Your task to perform on an android device: open sync settings in chrome Image 0: 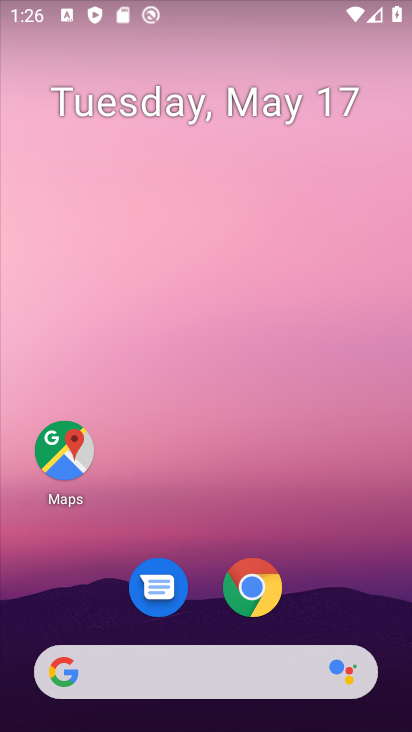
Step 0: drag from (204, 608) to (241, 21)
Your task to perform on an android device: open sync settings in chrome Image 1: 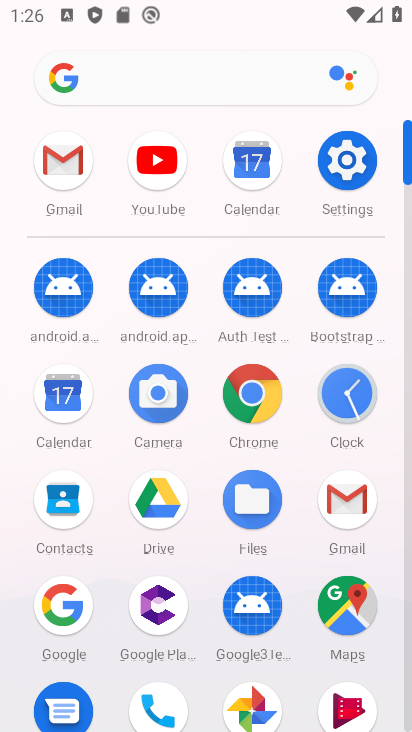
Step 1: click (249, 399)
Your task to perform on an android device: open sync settings in chrome Image 2: 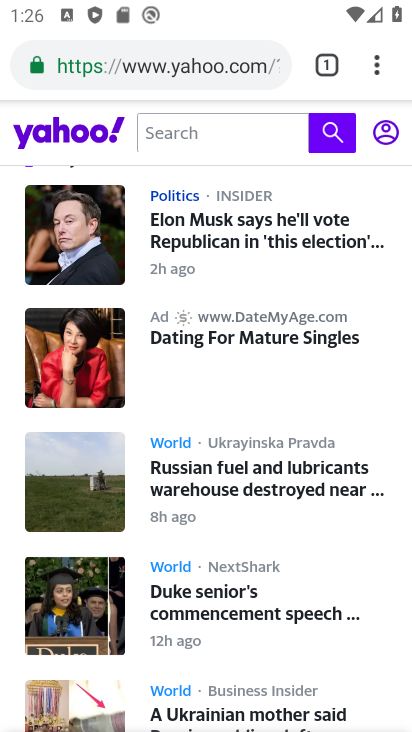
Step 2: drag from (250, 523) to (346, 123)
Your task to perform on an android device: open sync settings in chrome Image 3: 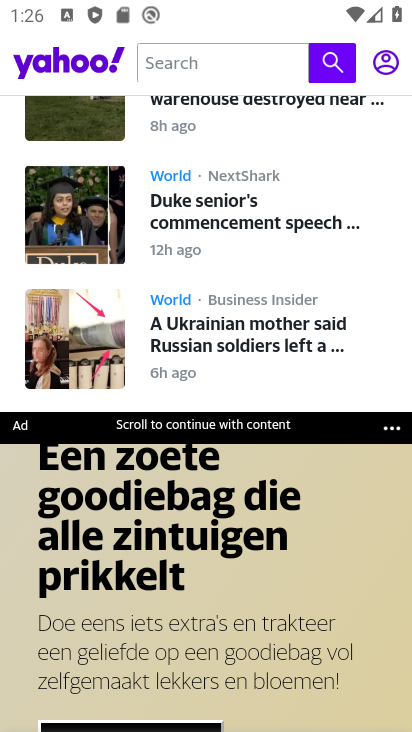
Step 3: drag from (260, 588) to (266, 233)
Your task to perform on an android device: open sync settings in chrome Image 4: 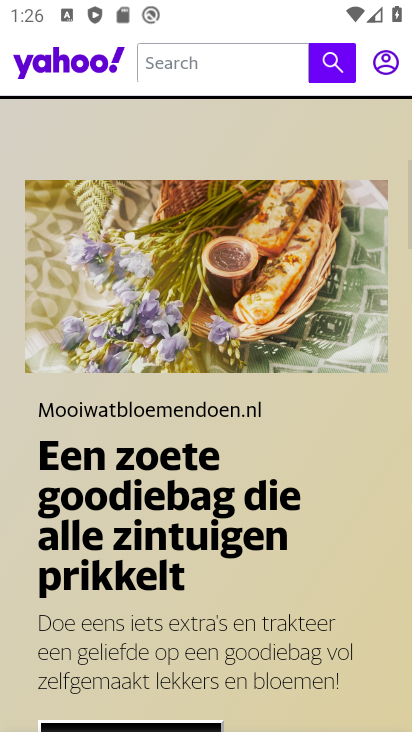
Step 4: drag from (255, 114) to (258, 731)
Your task to perform on an android device: open sync settings in chrome Image 5: 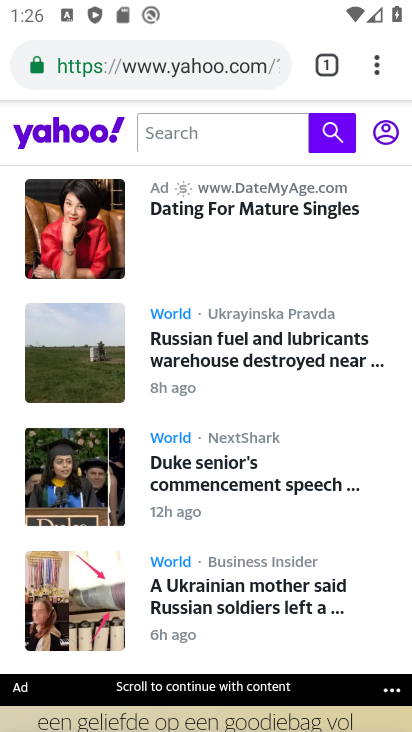
Step 5: drag from (291, 403) to (192, 726)
Your task to perform on an android device: open sync settings in chrome Image 6: 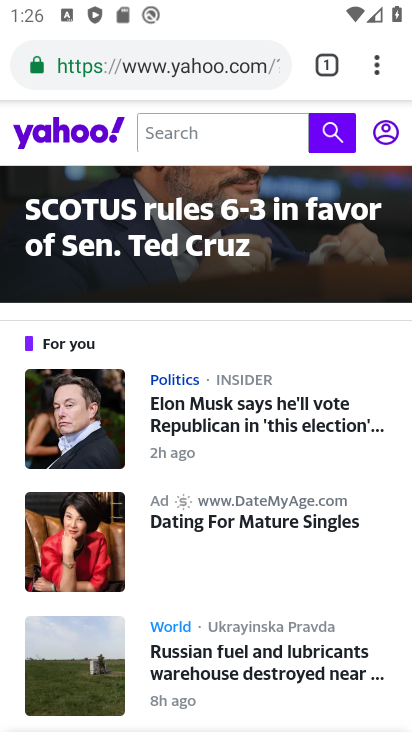
Step 6: click (378, 67)
Your task to perform on an android device: open sync settings in chrome Image 7: 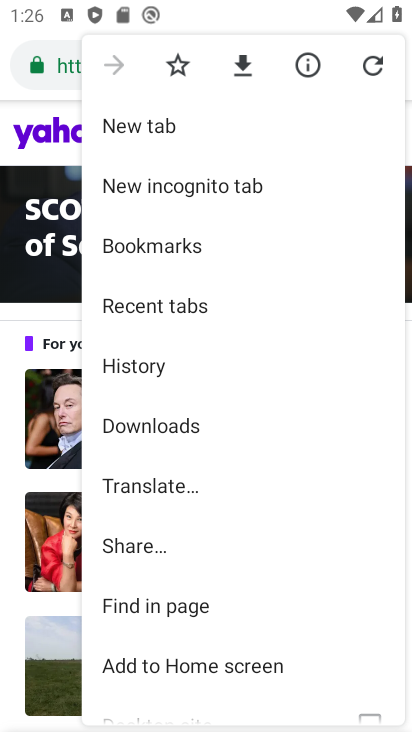
Step 7: drag from (207, 610) to (140, 6)
Your task to perform on an android device: open sync settings in chrome Image 8: 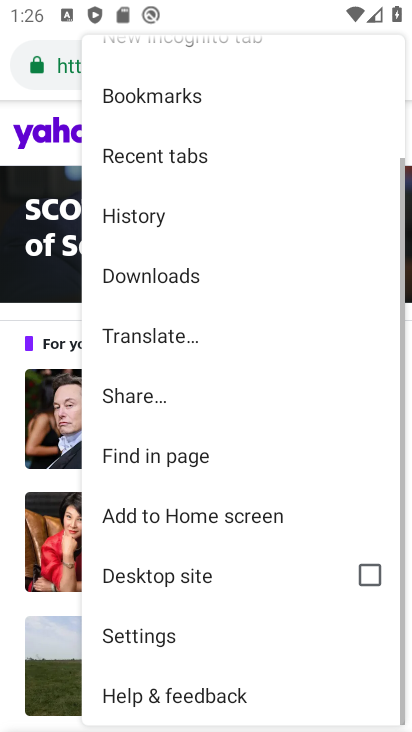
Step 8: click (170, 626)
Your task to perform on an android device: open sync settings in chrome Image 9: 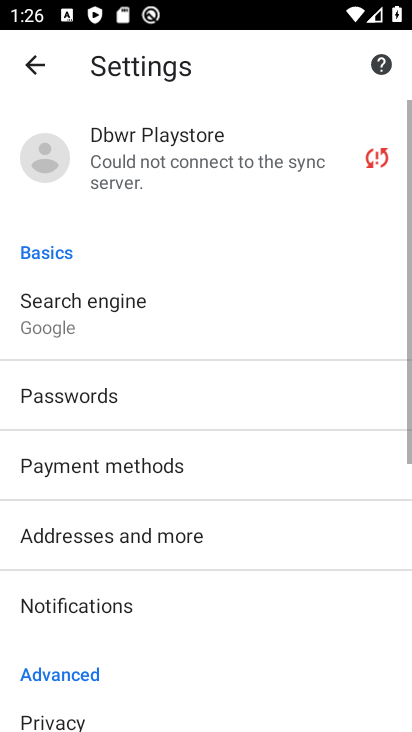
Step 9: drag from (199, 664) to (273, 42)
Your task to perform on an android device: open sync settings in chrome Image 10: 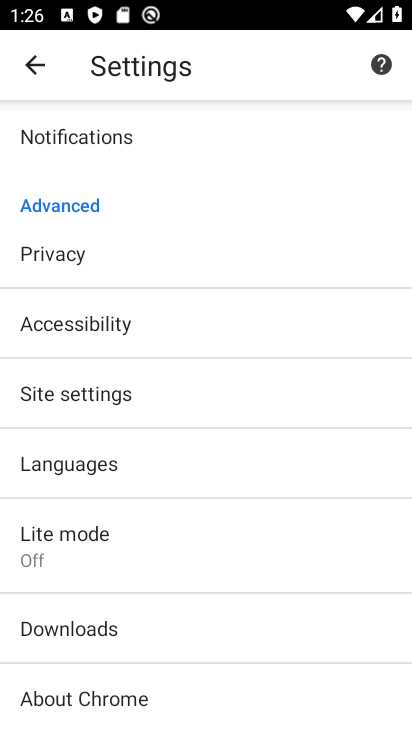
Step 10: click (153, 399)
Your task to perform on an android device: open sync settings in chrome Image 11: 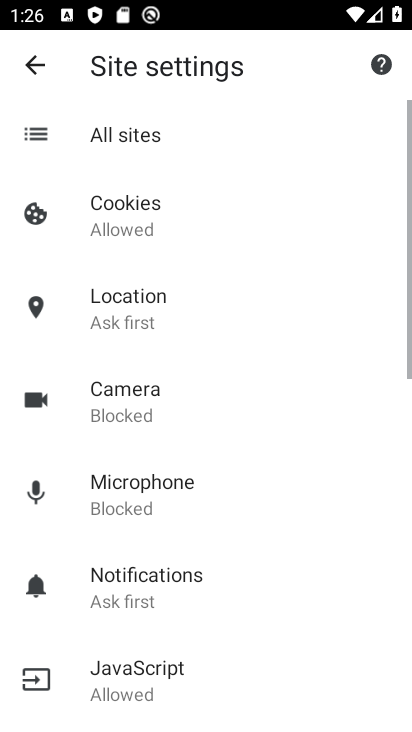
Step 11: drag from (232, 592) to (265, 231)
Your task to perform on an android device: open sync settings in chrome Image 12: 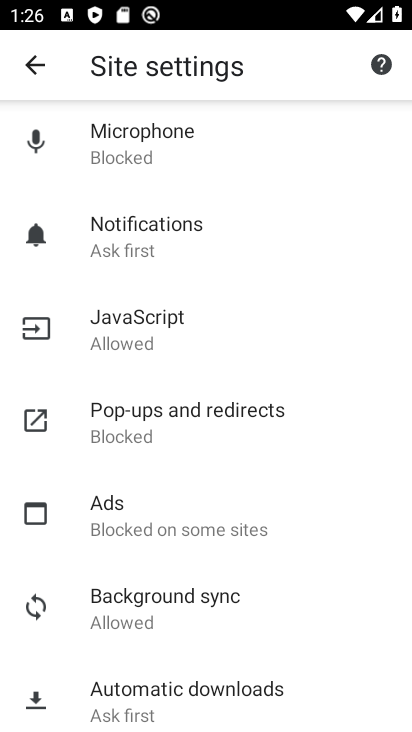
Step 12: click (186, 612)
Your task to perform on an android device: open sync settings in chrome Image 13: 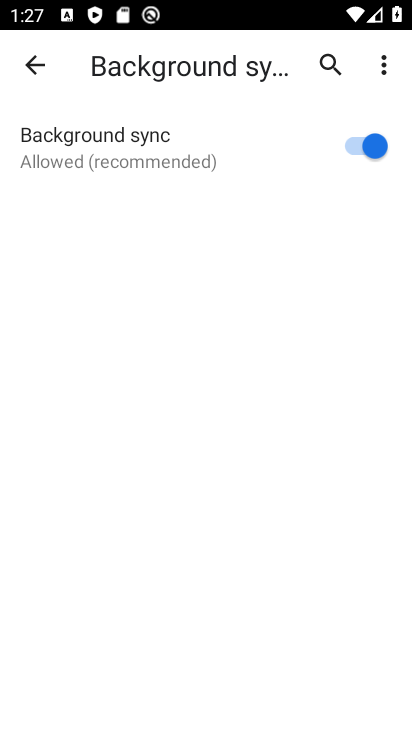
Step 13: task complete